Your task to perform on an android device: Go to Google maps Image 0: 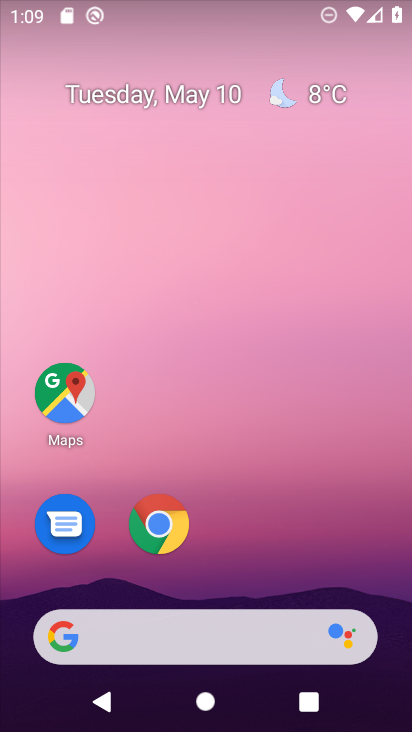
Step 0: click (61, 397)
Your task to perform on an android device: Go to Google maps Image 1: 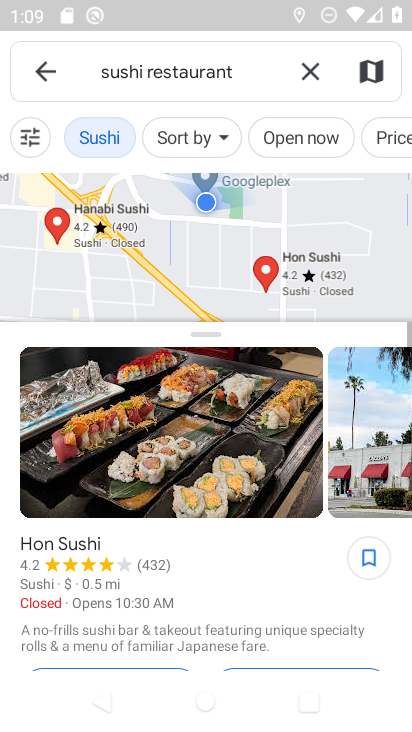
Step 1: task complete